Your task to perform on an android device: Open Google Chrome and open the bookmarks view Image 0: 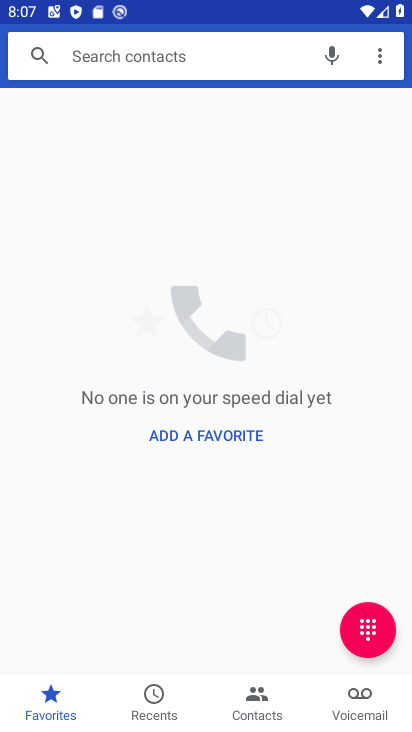
Step 0: press home button
Your task to perform on an android device: Open Google Chrome and open the bookmarks view Image 1: 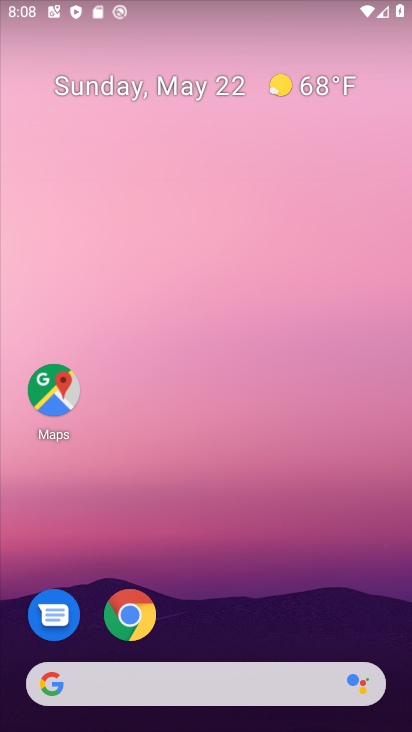
Step 1: click (210, 651)
Your task to perform on an android device: Open Google Chrome and open the bookmarks view Image 2: 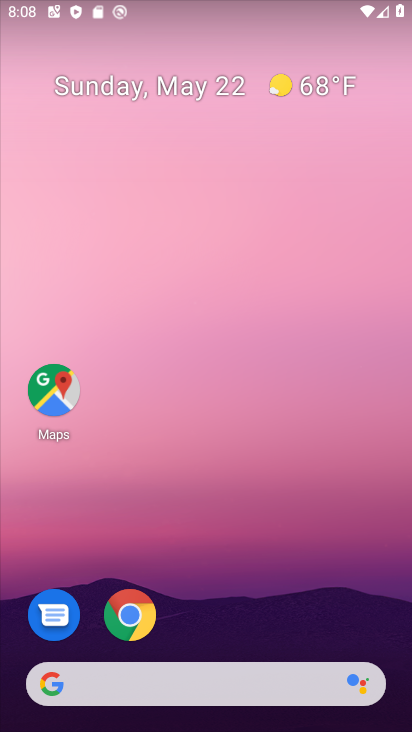
Step 2: drag from (210, 651) to (394, 367)
Your task to perform on an android device: Open Google Chrome and open the bookmarks view Image 3: 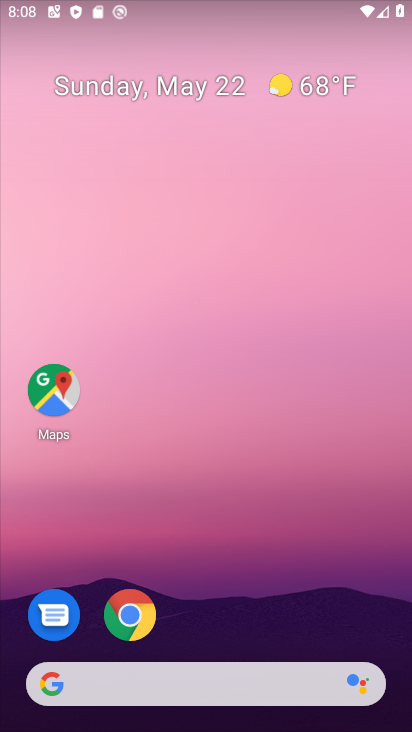
Step 3: click (143, 612)
Your task to perform on an android device: Open Google Chrome and open the bookmarks view Image 4: 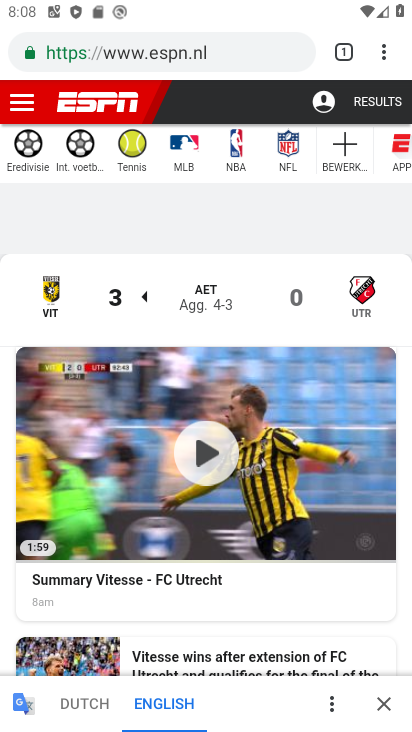
Step 4: click (381, 61)
Your task to perform on an android device: Open Google Chrome and open the bookmarks view Image 5: 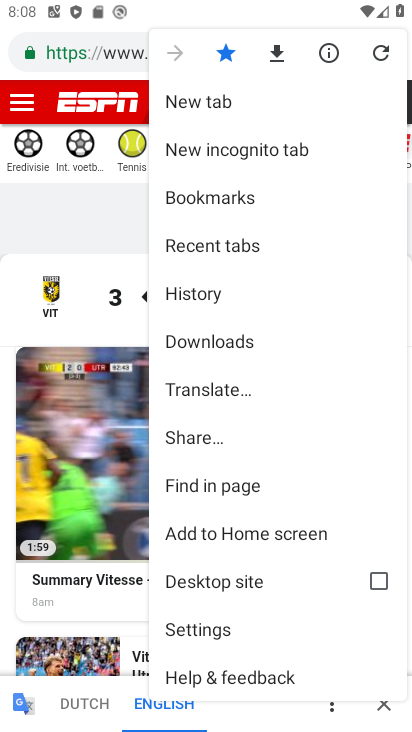
Step 5: click (234, 196)
Your task to perform on an android device: Open Google Chrome and open the bookmarks view Image 6: 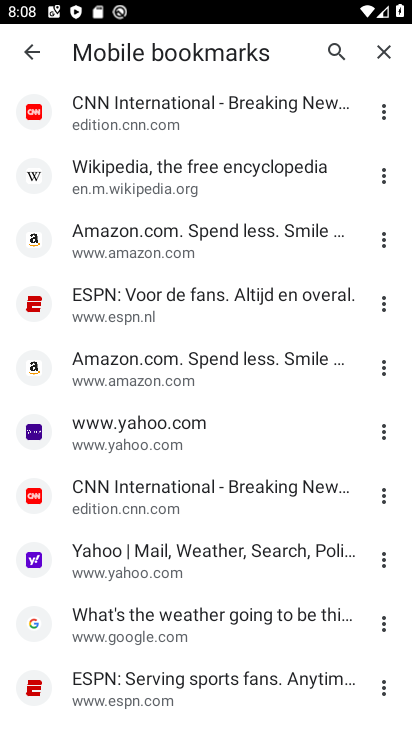
Step 6: task complete